Your task to perform on an android device: Open the calendar app, open the side menu, and click the "Day" option Image 0: 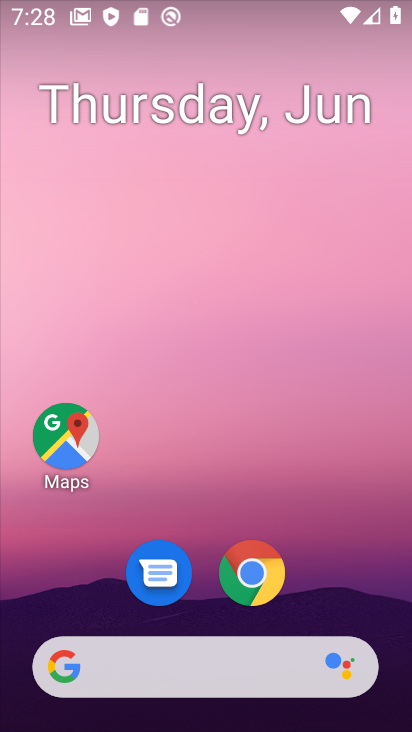
Step 0: drag from (279, 405) to (271, 223)
Your task to perform on an android device: Open the calendar app, open the side menu, and click the "Day" option Image 1: 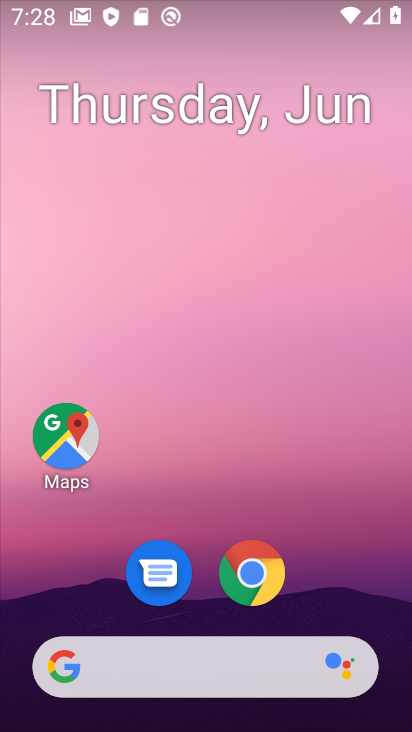
Step 1: drag from (219, 546) to (266, 136)
Your task to perform on an android device: Open the calendar app, open the side menu, and click the "Day" option Image 2: 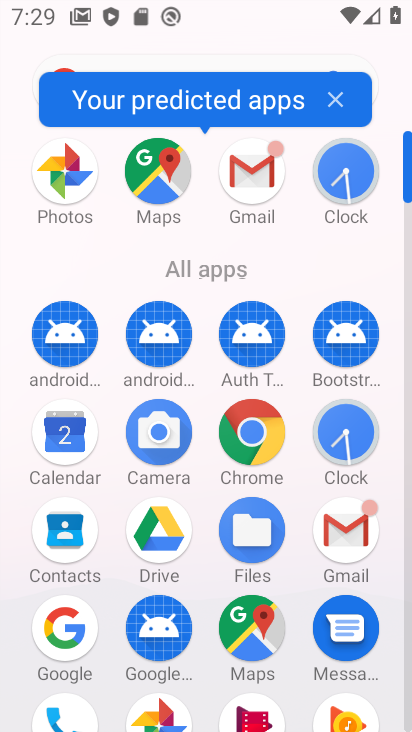
Step 2: click (61, 434)
Your task to perform on an android device: Open the calendar app, open the side menu, and click the "Day" option Image 3: 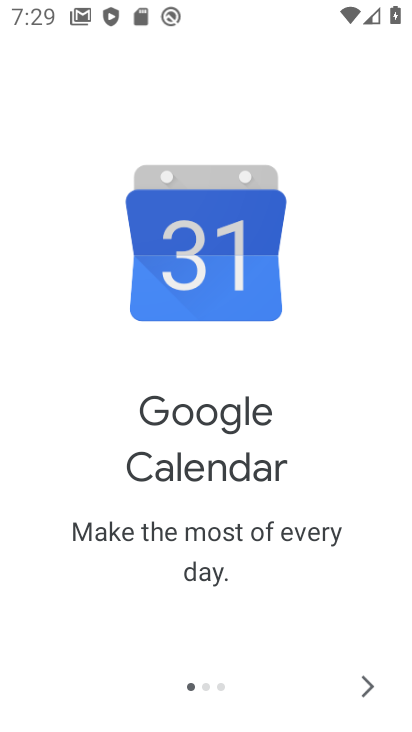
Step 3: click (361, 674)
Your task to perform on an android device: Open the calendar app, open the side menu, and click the "Day" option Image 4: 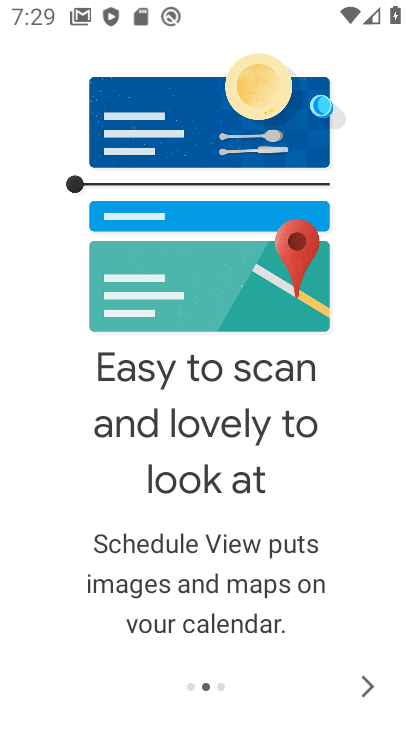
Step 4: click (343, 691)
Your task to perform on an android device: Open the calendar app, open the side menu, and click the "Day" option Image 5: 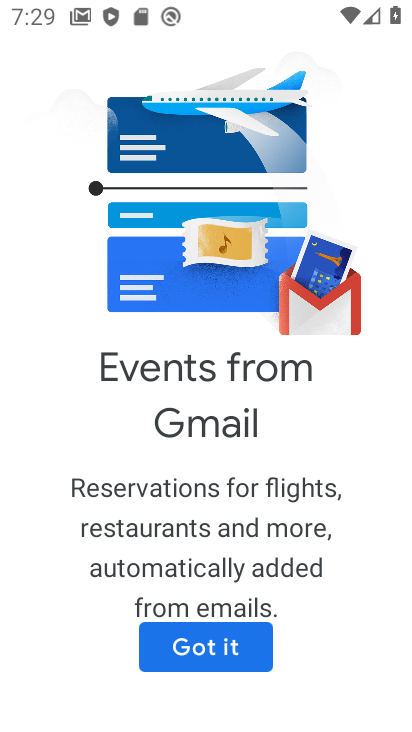
Step 5: click (246, 666)
Your task to perform on an android device: Open the calendar app, open the side menu, and click the "Day" option Image 6: 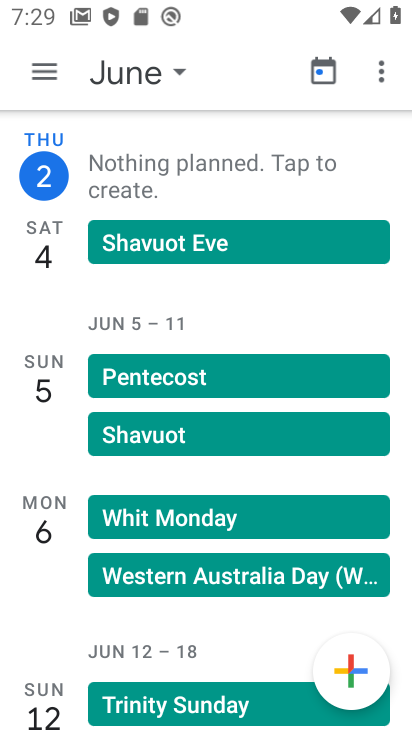
Step 6: click (27, 66)
Your task to perform on an android device: Open the calendar app, open the side menu, and click the "Day" option Image 7: 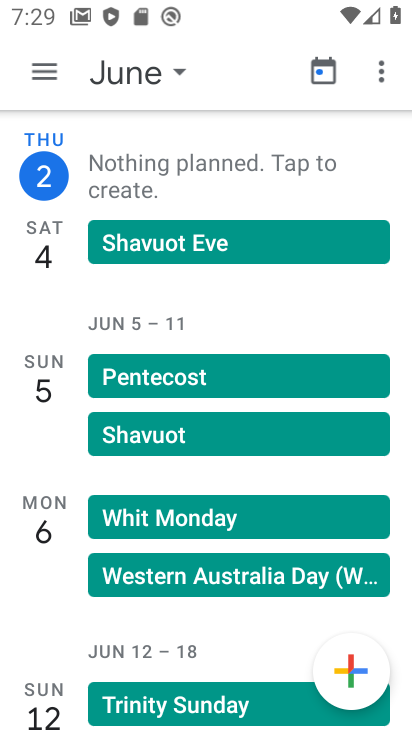
Step 7: click (52, 73)
Your task to perform on an android device: Open the calendar app, open the side menu, and click the "Day" option Image 8: 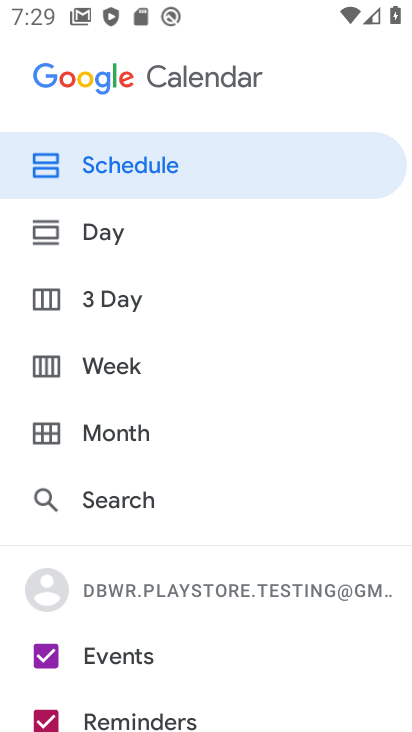
Step 8: click (113, 234)
Your task to perform on an android device: Open the calendar app, open the side menu, and click the "Day" option Image 9: 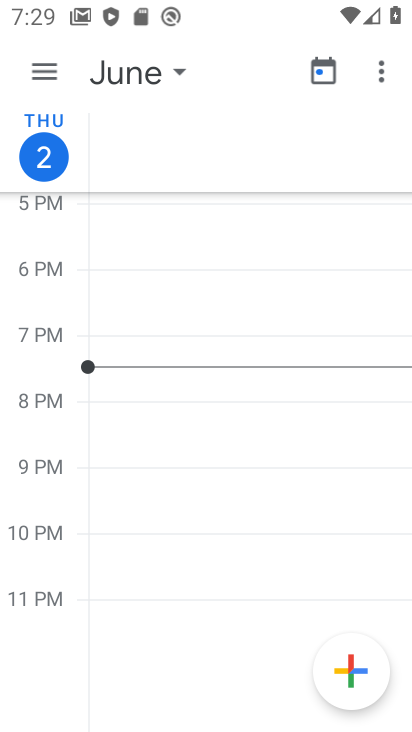
Step 9: task complete